Your task to perform on an android device: Open settings Image 0: 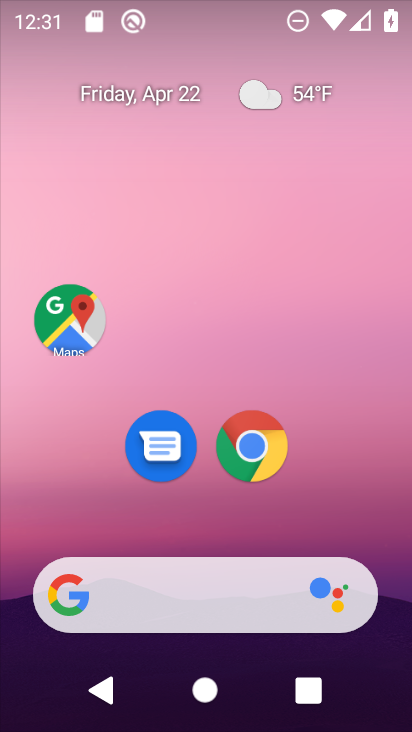
Step 0: drag from (338, 523) to (316, 245)
Your task to perform on an android device: Open settings Image 1: 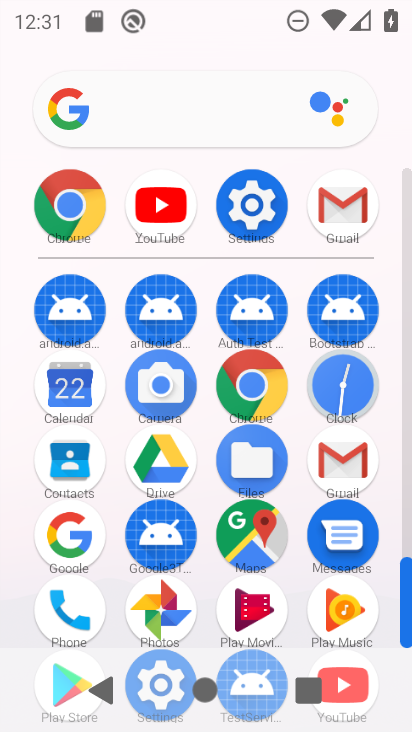
Step 1: click (261, 213)
Your task to perform on an android device: Open settings Image 2: 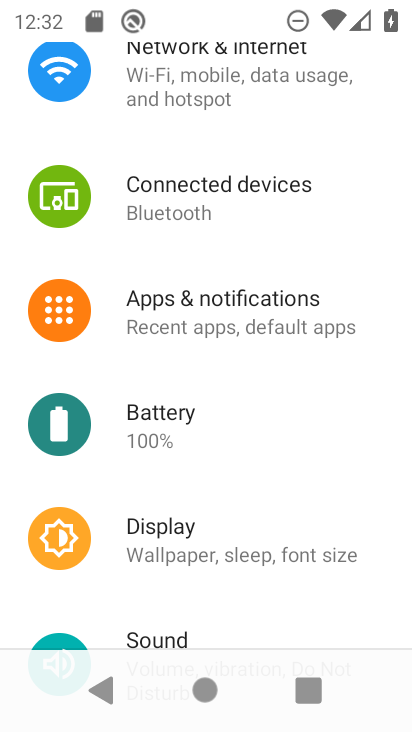
Step 2: task complete